Your task to perform on an android device: Search for Italian restaurants on Maps Image 0: 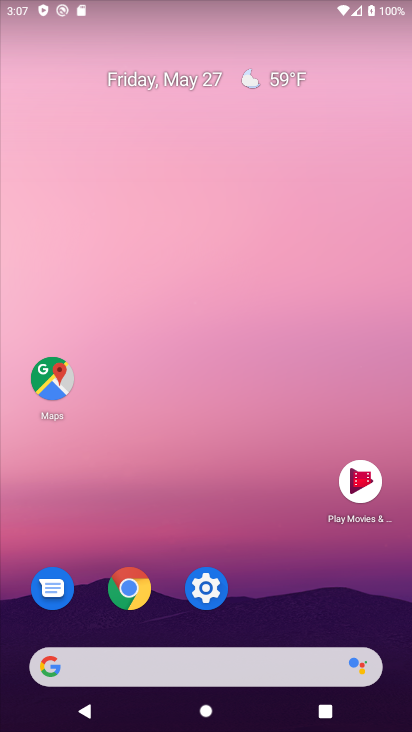
Step 0: drag from (228, 5) to (243, 45)
Your task to perform on an android device: Search for Italian restaurants on Maps Image 1: 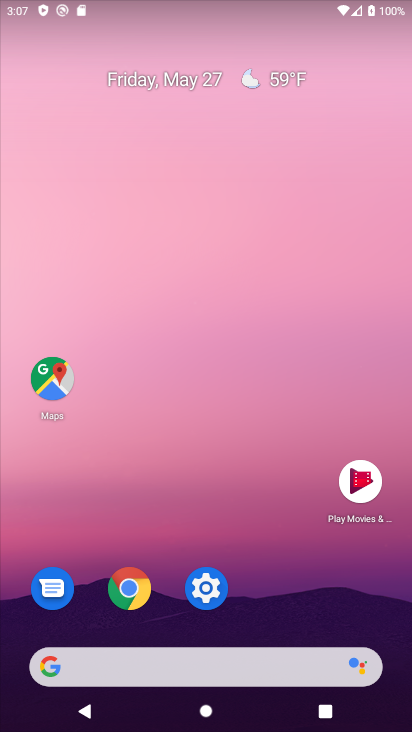
Step 1: drag from (238, 359) to (166, 121)
Your task to perform on an android device: Search for Italian restaurants on Maps Image 2: 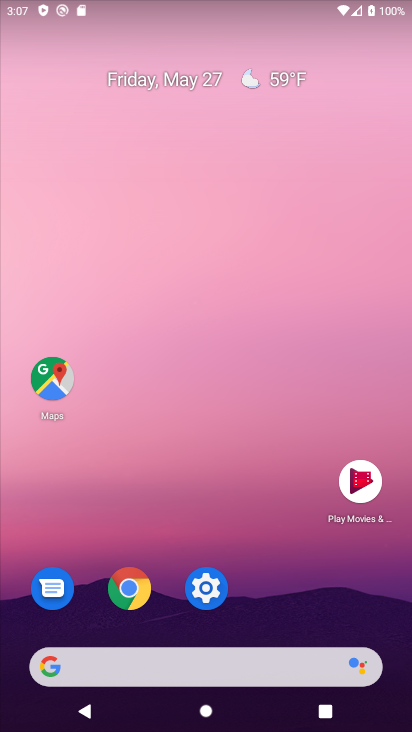
Step 2: drag from (284, 447) to (208, 4)
Your task to perform on an android device: Search for Italian restaurants on Maps Image 3: 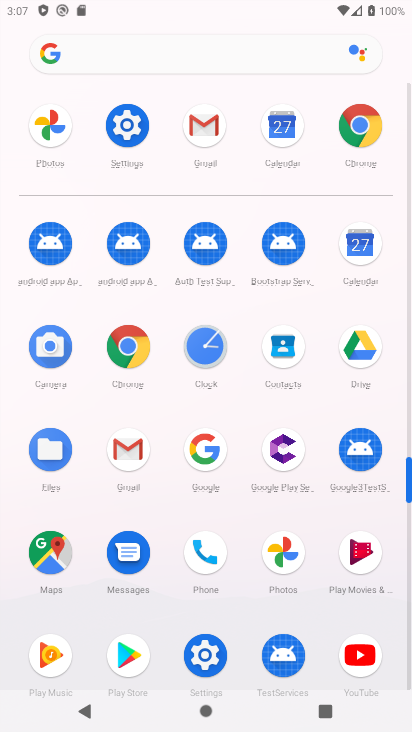
Step 3: click (50, 552)
Your task to perform on an android device: Search for Italian restaurants on Maps Image 4: 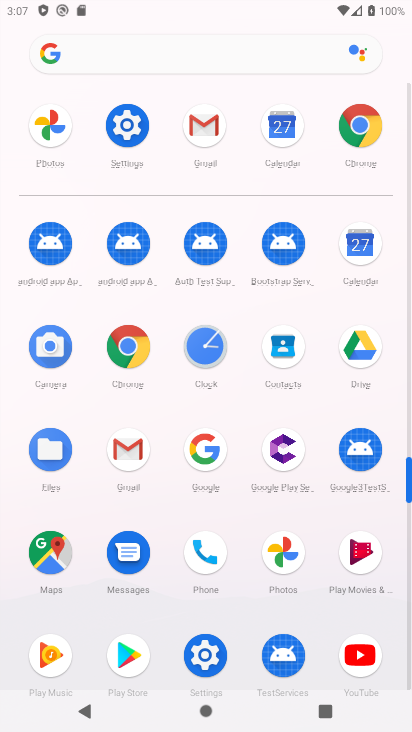
Step 4: click (50, 552)
Your task to perform on an android device: Search for Italian restaurants on Maps Image 5: 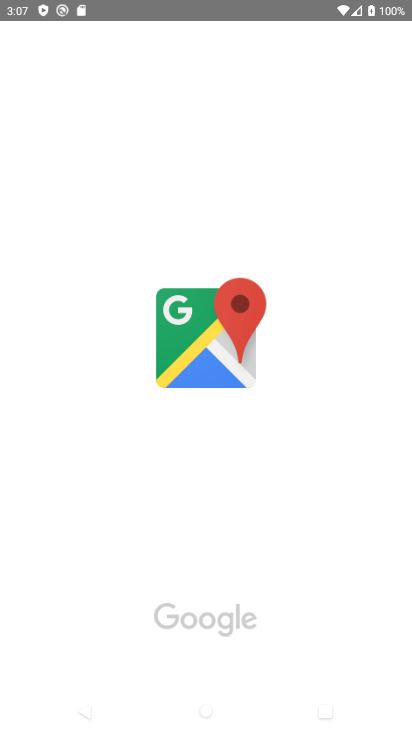
Step 5: click (50, 552)
Your task to perform on an android device: Search for Italian restaurants on Maps Image 6: 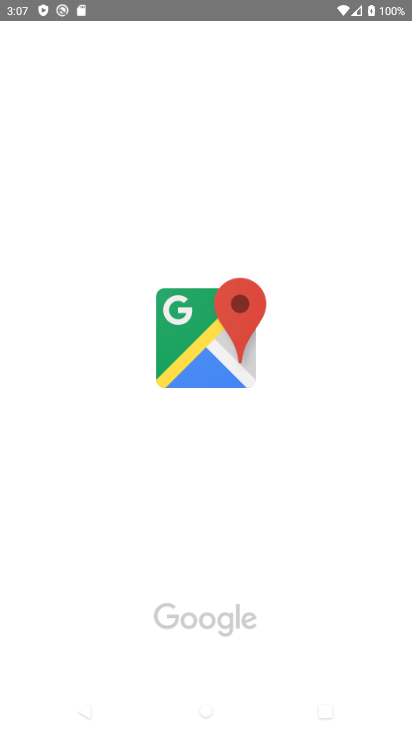
Step 6: click (50, 552)
Your task to perform on an android device: Search for Italian restaurants on Maps Image 7: 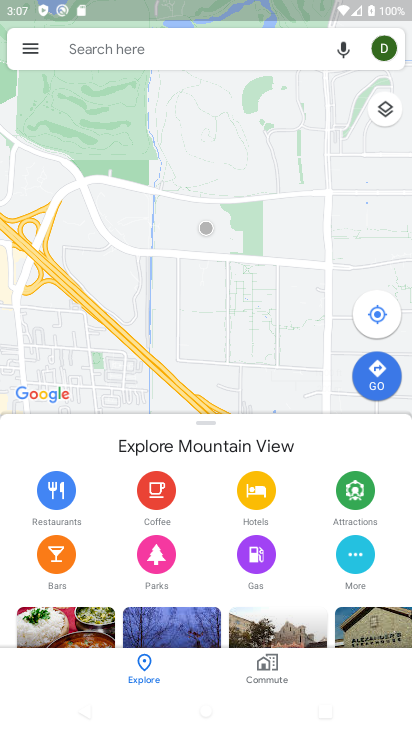
Step 7: click (71, 44)
Your task to perform on an android device: Search for Italian restaurants on Maps Image 8: 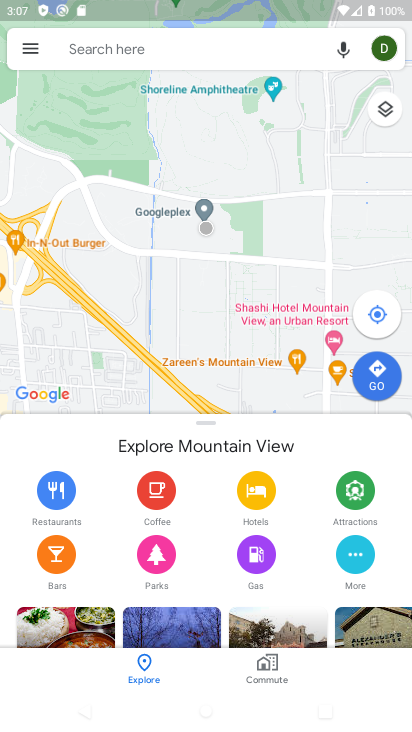
Step 8: click (71, 44)
Your task to perform on an android device: Search for Italian restaurants on Maps Image 9: 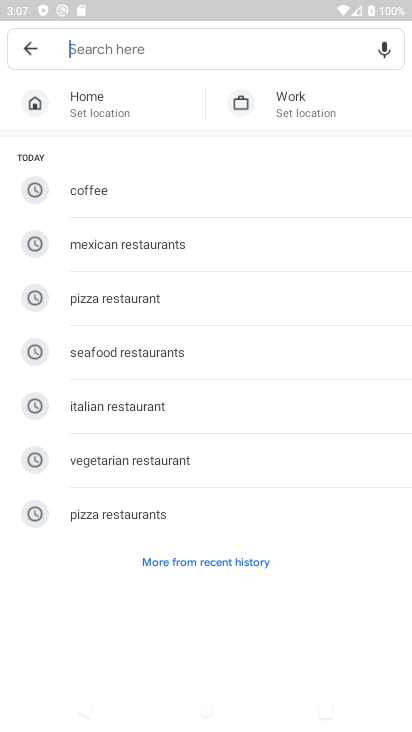
Step 9: click (73, 48)
Your task to perform on an android device: Search for Italian restaurants on Maps Image 10: 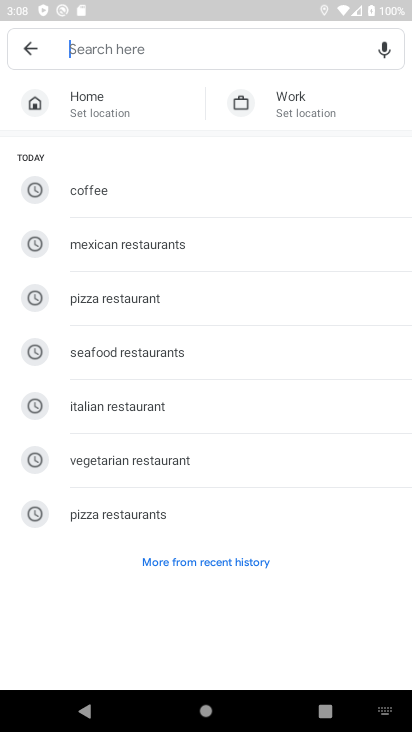
Step 10: click (110, 409)
Your task to perform on an android device: Search for Italian restaurants on Maps Image 11: 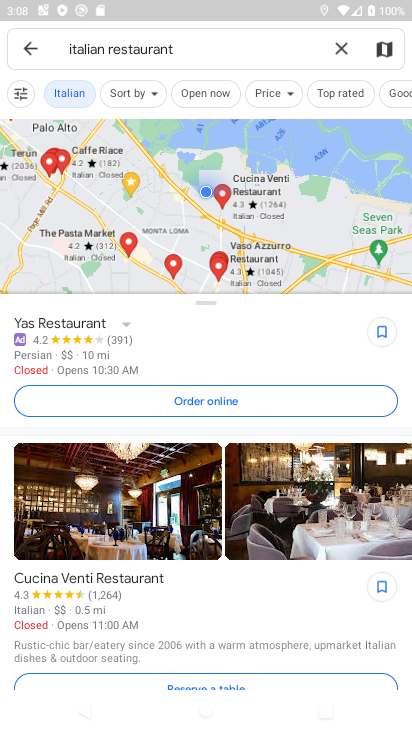
Step 11: task complete